Your task to perform on an android device: What is the news today? Image 0: 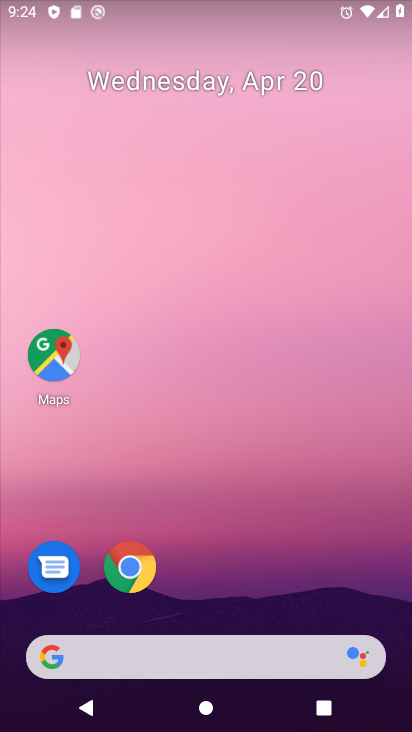
Step 0: drag from (0, 225) to (410, 235)
Your task to perform on an android device: What is the news today? Image 1: 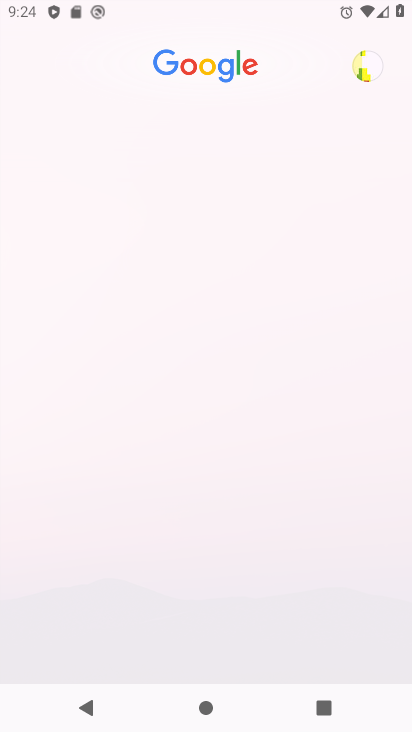
Step 1: task complete